Your task to perform on an android device: Do I have any events today? Image 0: 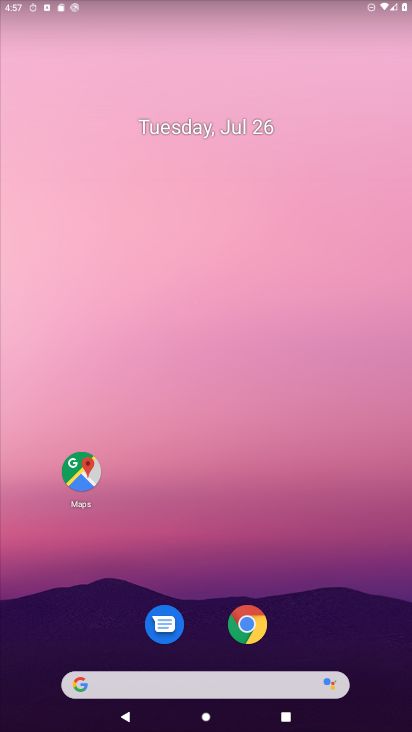
Step 0: drag from (223, 640) to (288, 99)
Your task to perform on an android device: Do I have any events today? Image 1: 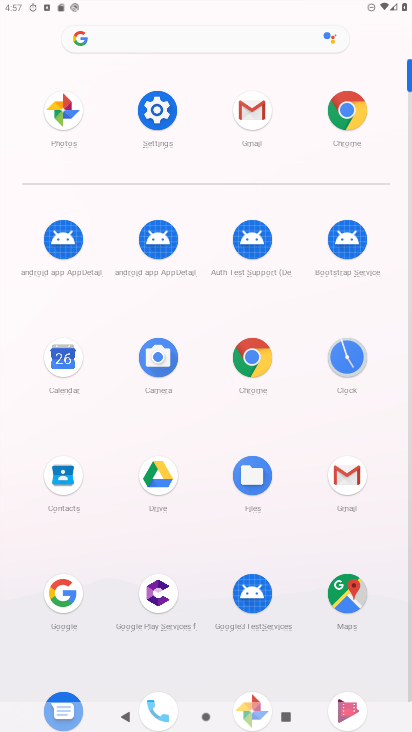
Step 1: click (71, 356)
Your task to perform on an android device: Do I have any events today? Image 2: 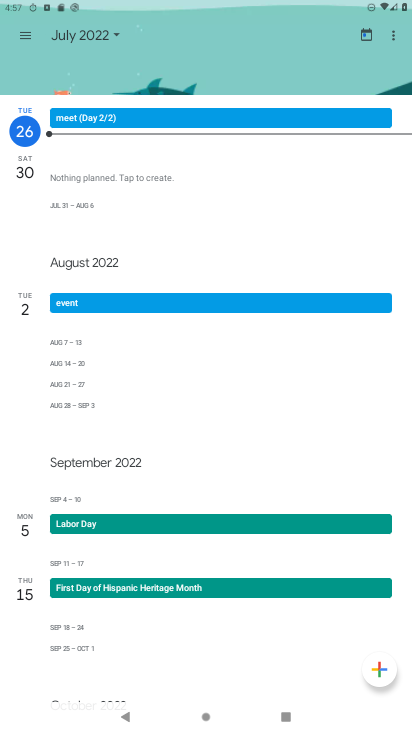
Step 2: click (115, 36)
Your task to perform on an android device: Do I have any events today? Image 3: 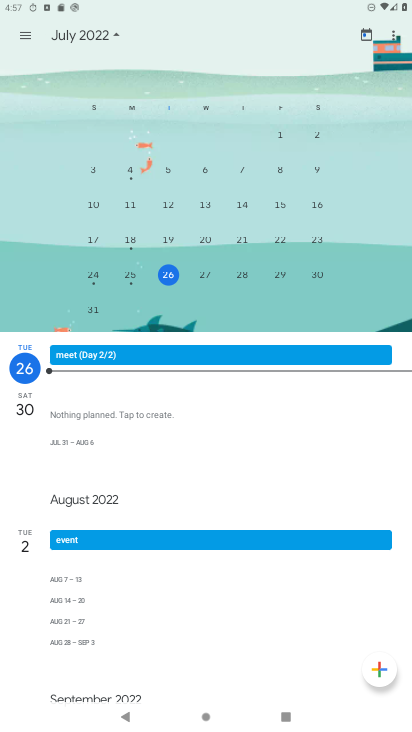
Step 3: click (174, 274)
Your task to perform on an android device: Do I have any events today? Image 4: 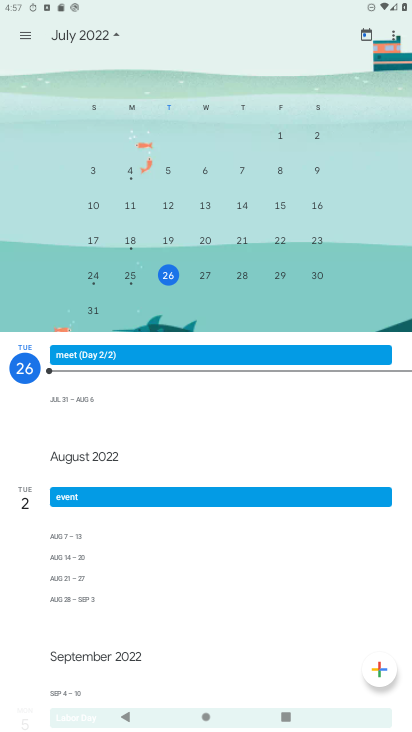
Step 4: task complete